Your task to perform on an android device: Check the news Image 0: 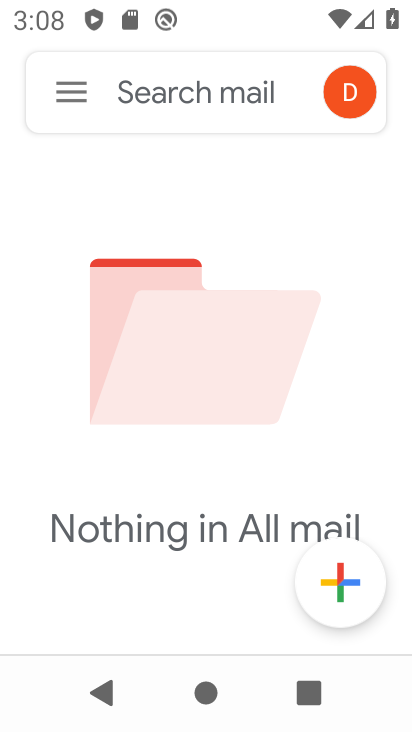
Step 0: press home button
Your task to perform on an android device: Check the news Image 1: 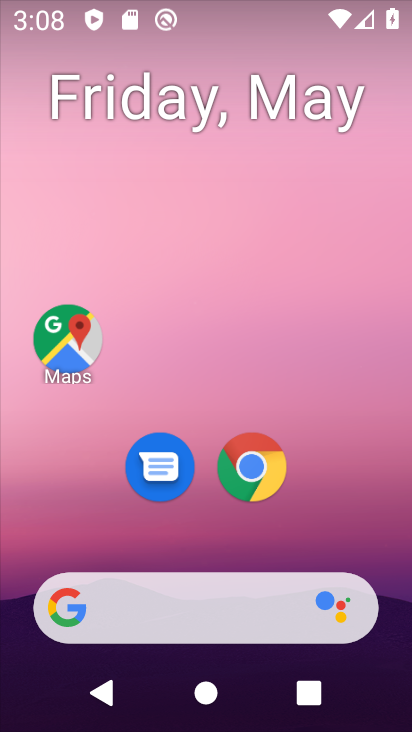
Step 1: click (262, 484)
Your task to perform on an android device: Check the news Image 2: 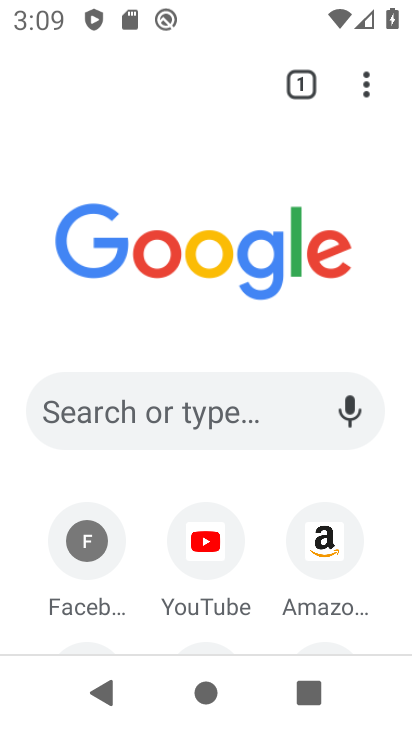
Step 2: task complete